Your task to perform on an android device: Open sound settings Image 0: 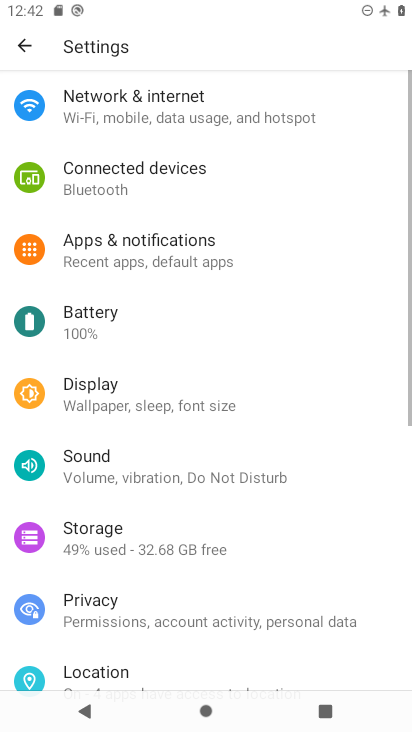
Step 0: press home button
Your task to perform on an android device: Open sound settings Image 1: 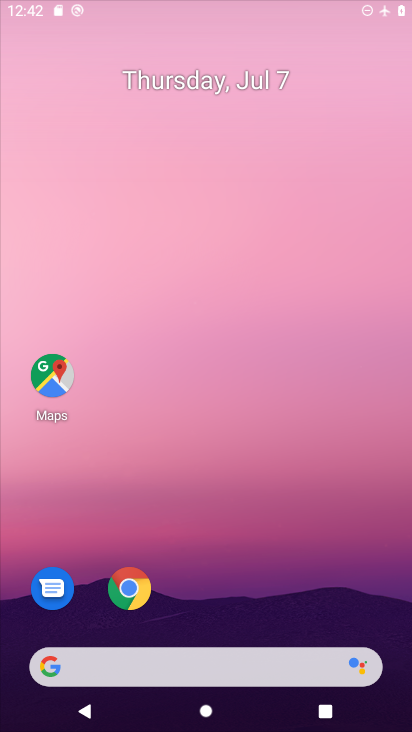
Step 1: drag from (288, 682) to (259, 1)
Your task to perform on an android device: Open sound settings Image 2: 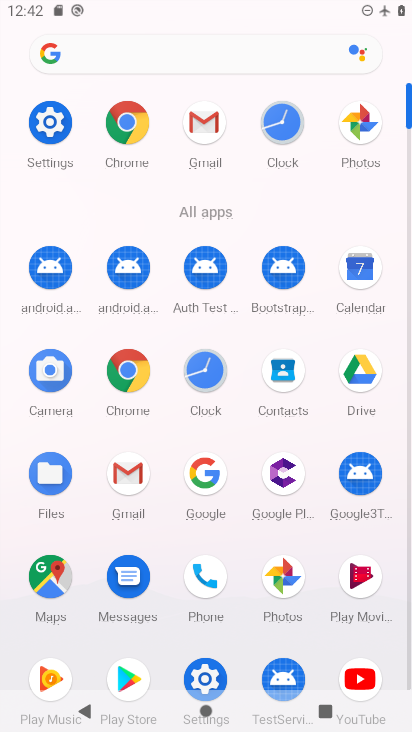
Step 2: click (31, 128)
Your task to perform on an android device: Open sound settings Image 3: 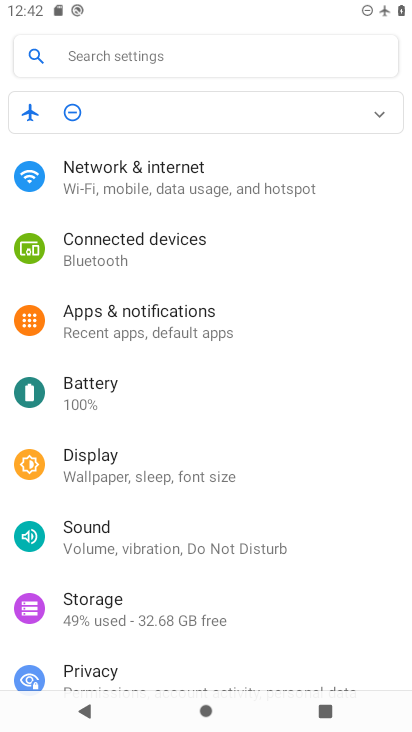
Step 3: click (166, 549)
Your task to perform on an android device: Open sound settings Image 4: 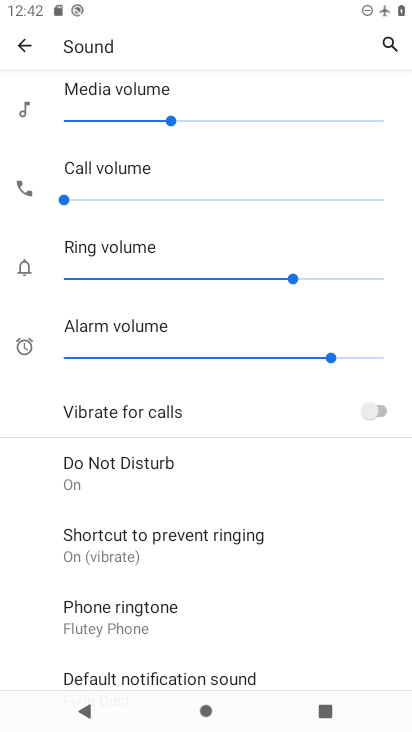
Step 4: task complete